Your task to perform on an android device: Show me productivity apps on the Play Store Image 0: 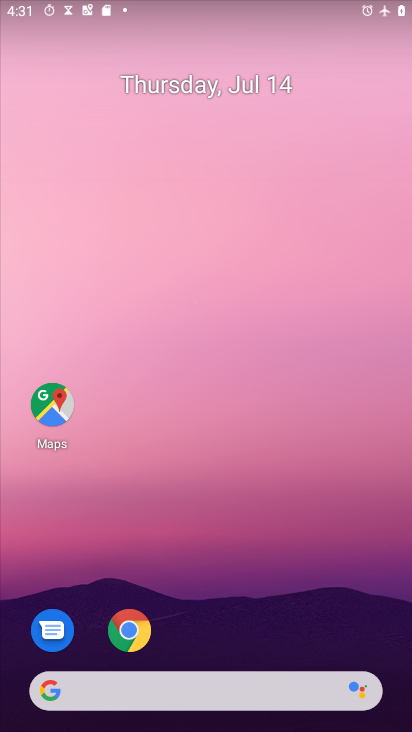
Step 0: drag from (217, 727) to (248, 218)
Your task to perform on an android device: Show me productivity apps on the Play Store Image 1: 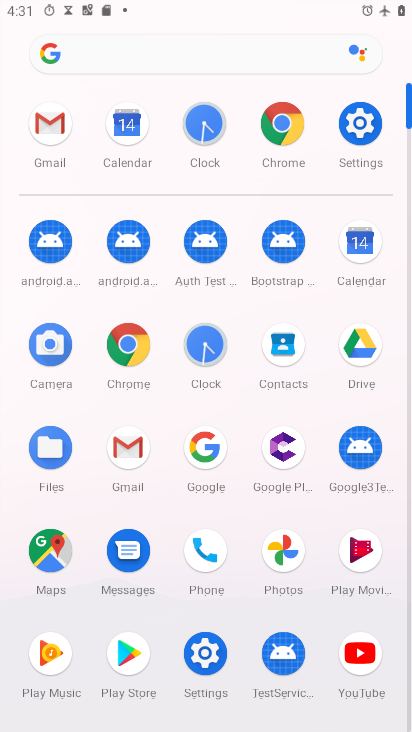
Step 1: click (127, 655)
Your task to perform on an android device: Show me productivity apps on the Play Store Image 2: 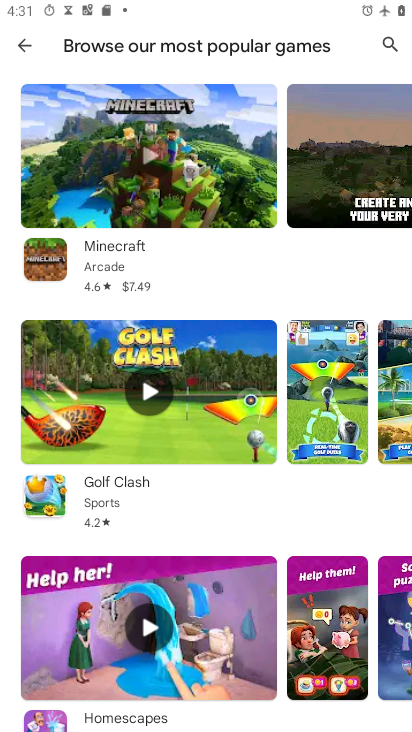
Step 2: click (27, 40)
Your task to perform on an android device: Show me productivity apps on the Play Store Image 3: 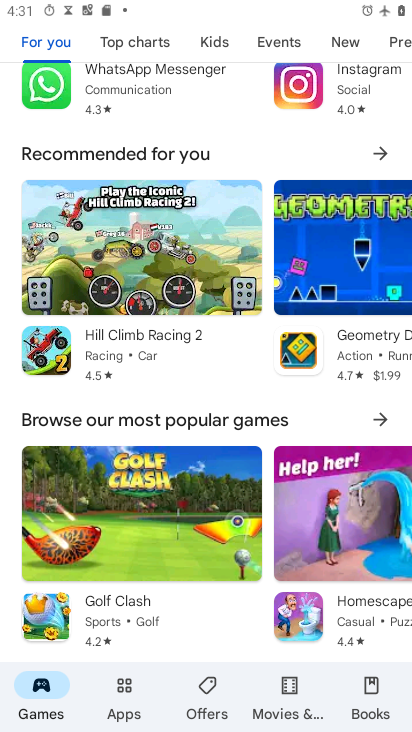
Step 3: click (119, 692)
Your task to perform on an android device: Show me productivity apps on the Play Store Image 4: 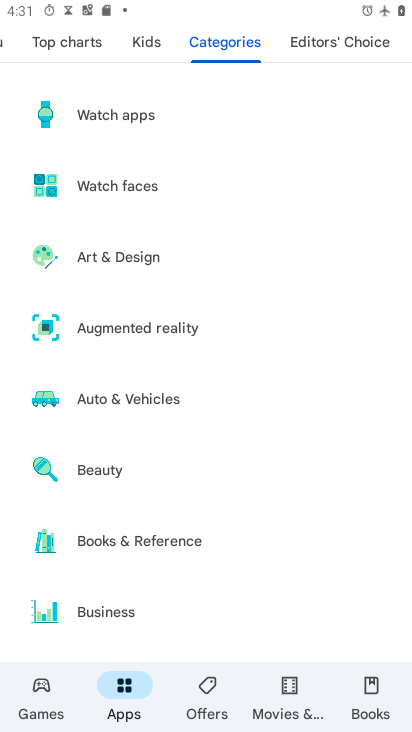
Step 4: drag from (181, 594) to (168, 262)
Your task to perform on an android device: Show me productivity apps on the Play Store Image 5: 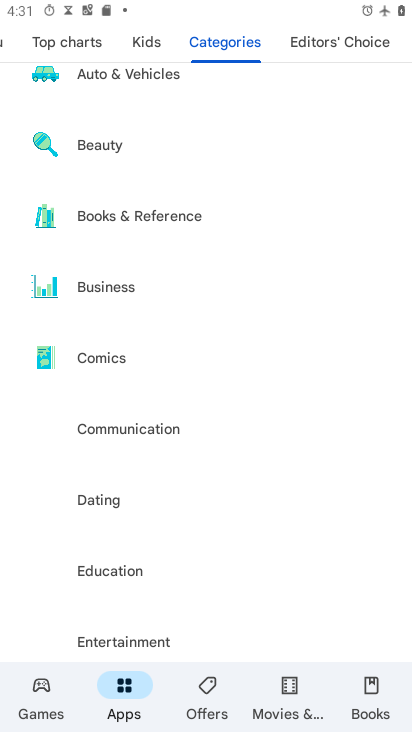
Step 5: drag from (157, 614) to (170, 224)
Your task to perform on an android device: Show me productivity apps on the Play Store Image 6: 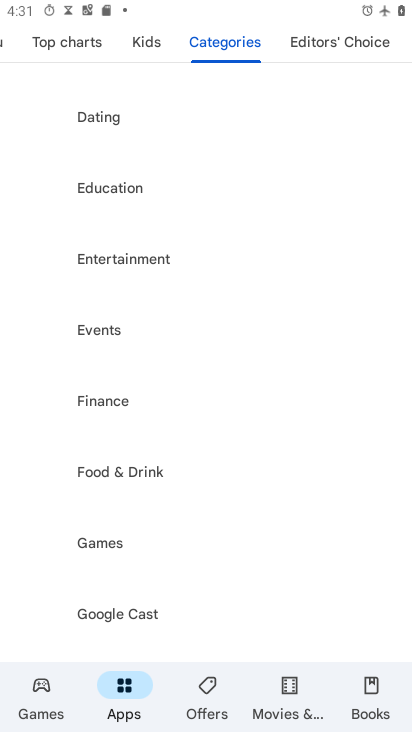
Step 6: drag from (183, 615) to (182, 255)
Your task to perform on an android device: Show me productivity apps on the Play Store Image 7: 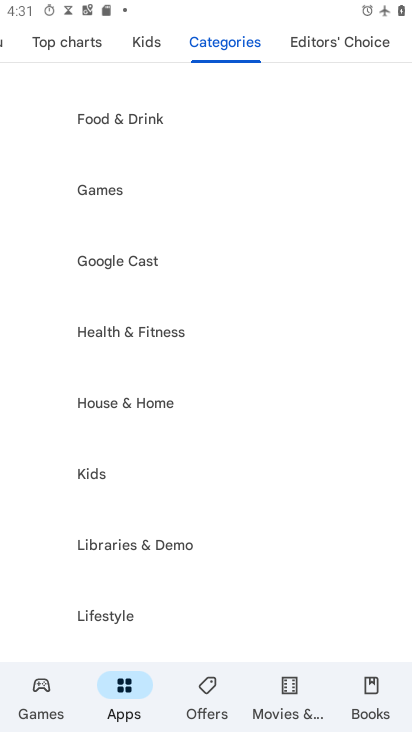
Step 7: drag from (184, 594) to (175, 202)
Your task to perform on an android device: Show me productivity apps on the Play Store Image 8: 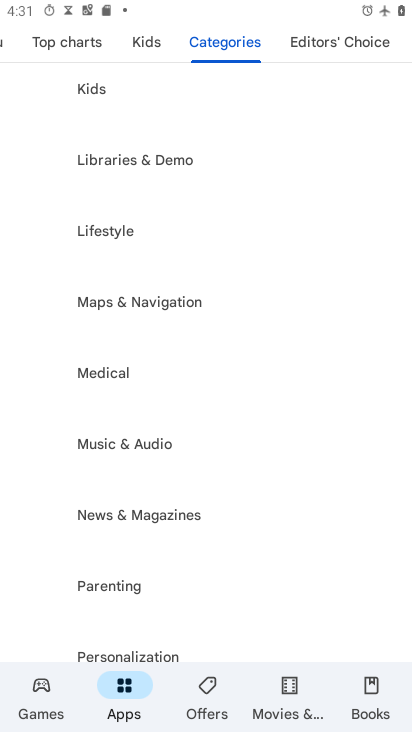
Step 8: drag from (173, 636) to (181, 291)
Your task to perform on an android device: Show me productivity apps on the Play Store Image 9: 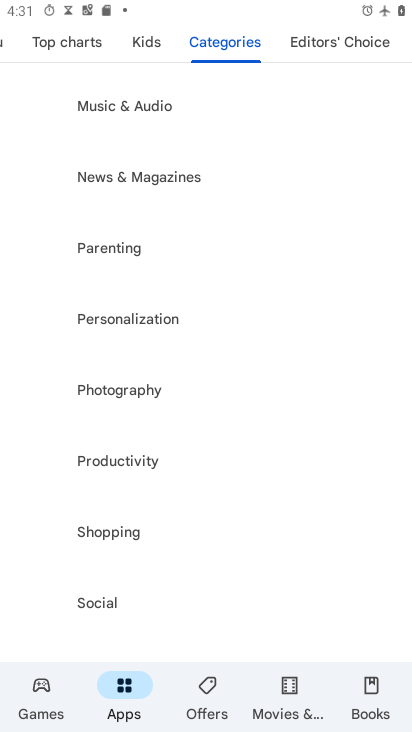
Step 9: click (115, 461)
Your task to perform on an android device: Show me productivity apps on the Play Store Image 10: 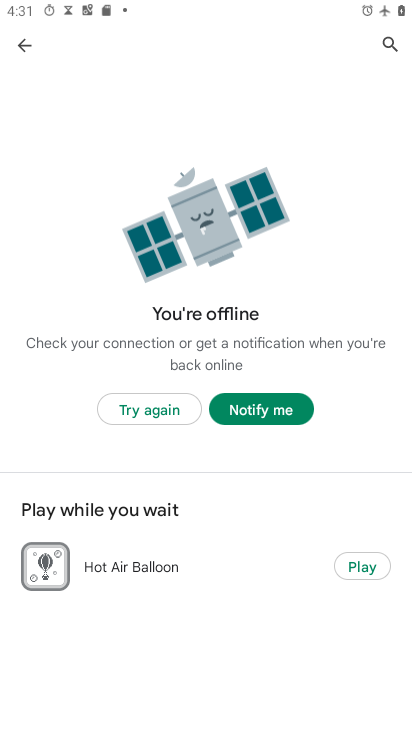
Step 10: task complete